Your task to perform on an android device: Open Wikipedia Image 0: 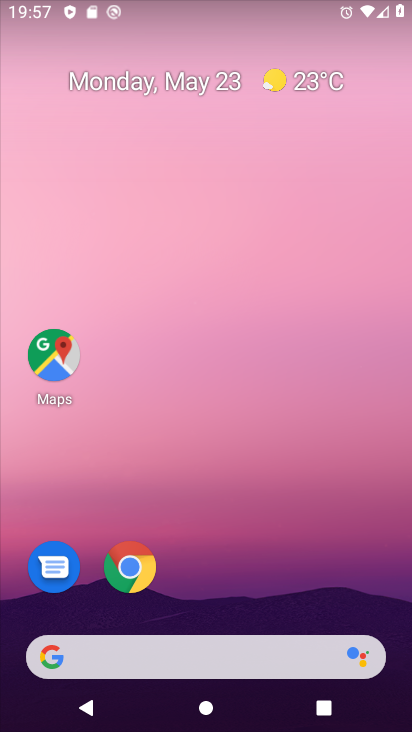
Step 0: drag from (233, 589) to (282, 335)
Your task to perform on an android device: Open Wikipedia Image 1: 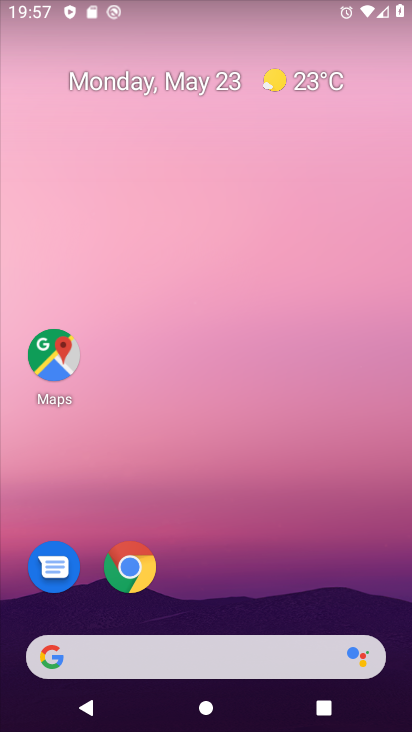
Step 1: click (132, 557)
Your task to perform on an android device: Open Wikipedia Image 2: 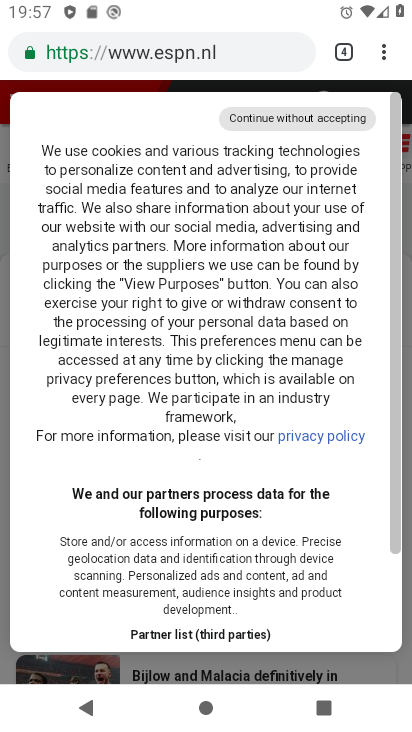
Step 2: click (374, 62)
Your task to perform on an android device: Open Wikipedia Image 3: 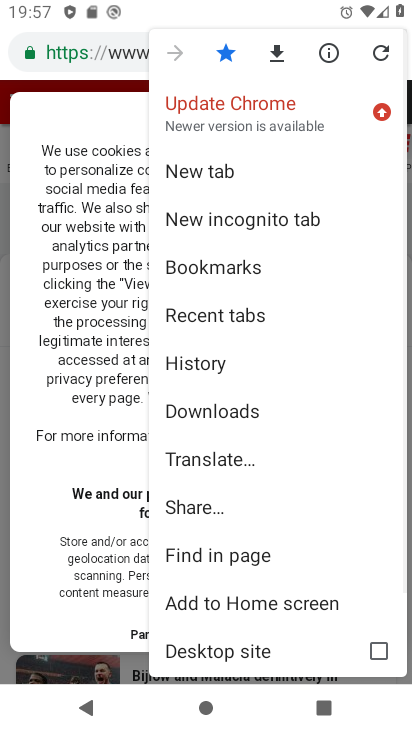
Step 3: click (202, 169)
Your task to perform on an android device: Open Wikipedia Image 4: 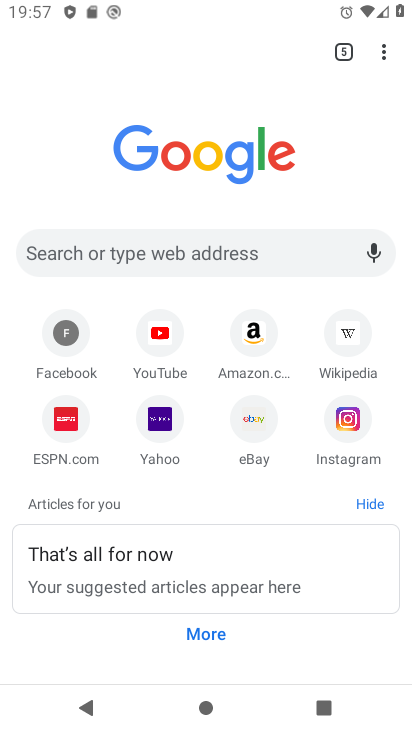
Step 4: click (345, 325)
Your task to perform on an android device: Open Wikipedia Image 5: 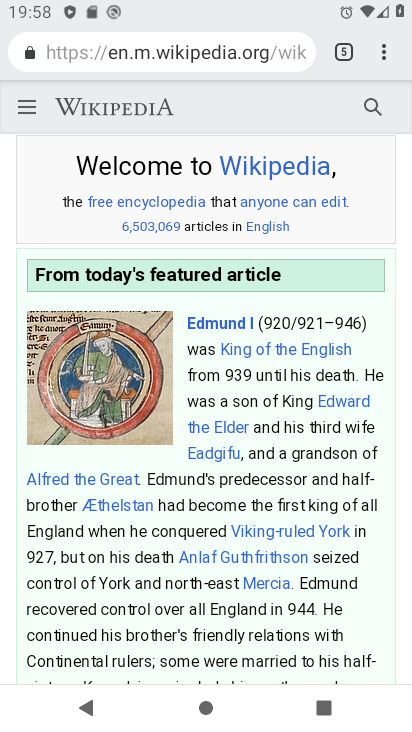
Step 5: task complete